Your task to perform on an android device: Open Yahoo.com Image 0: 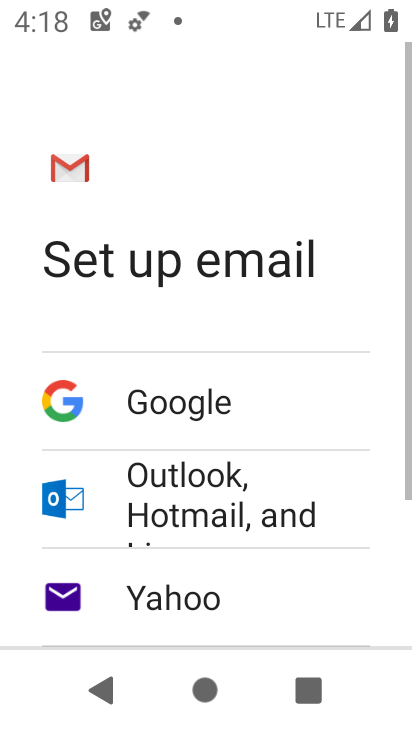
Step 0: press home button
Your task to perform on an android device: Open Yahoo.com Image 1: 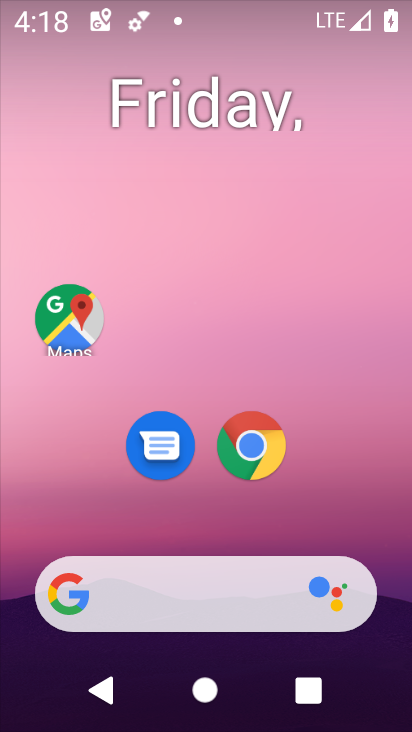
Step 1: click (277, 447)
Your task to perform on an android device: Open Yahoo.com Image 2: 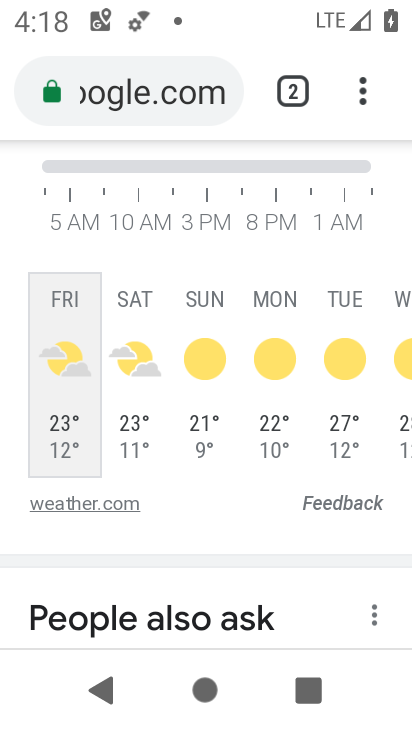
Step 2: click (158, 95)
Your task to perform on an android device: Open Yahoo.com Image 3: 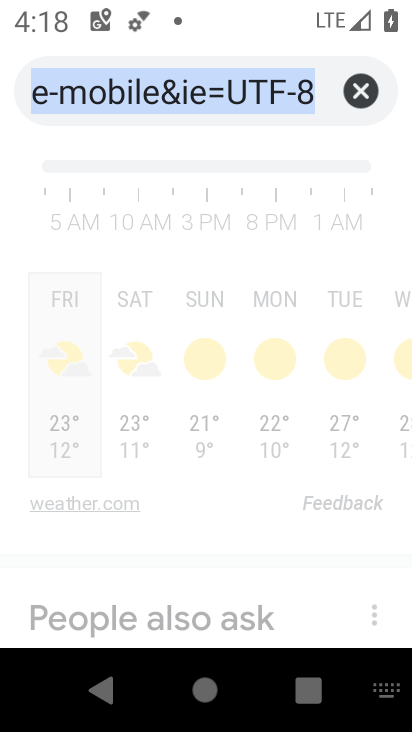
Step 3: type "yahoo.com"
Your task to perform on an android device: Open Yahoo.com Image 4: 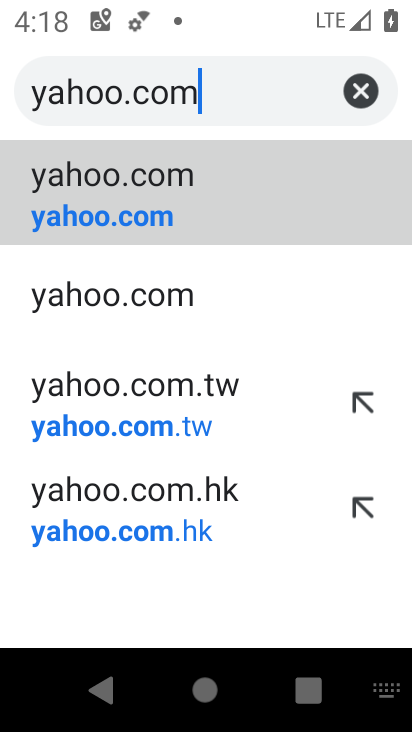
Step 4: click (115, 213)
Your task to perform on an android device: Open Yahoo.com Image 5: 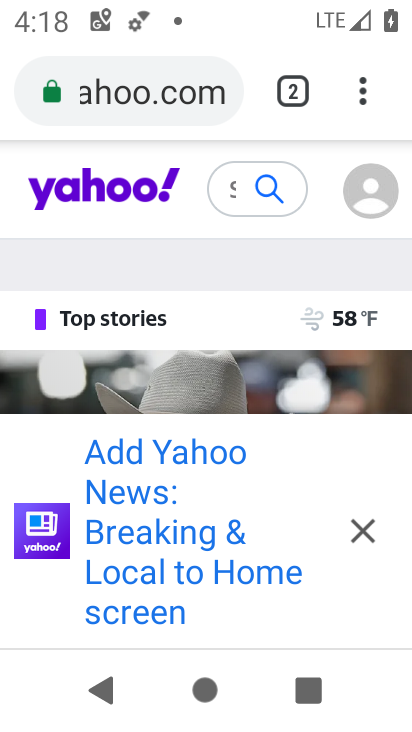
Step 5: task complete